Your task to perform on an android device: Open Youtube and go to "Your channel" Image 0: 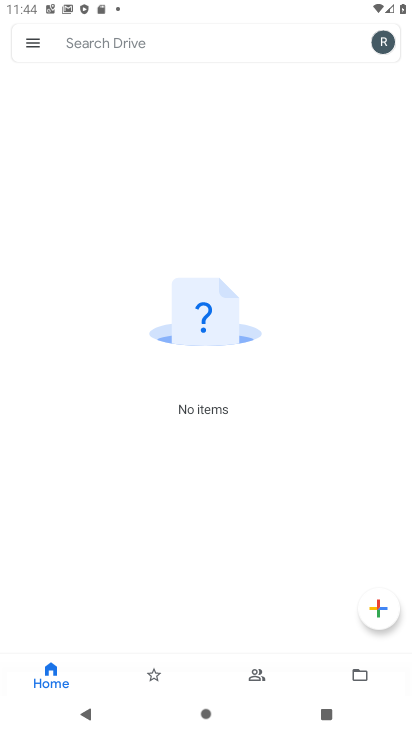
Step 0: press home button
Your task to perform on an android device: Open Youtube and go to "Your channel" Image 1: 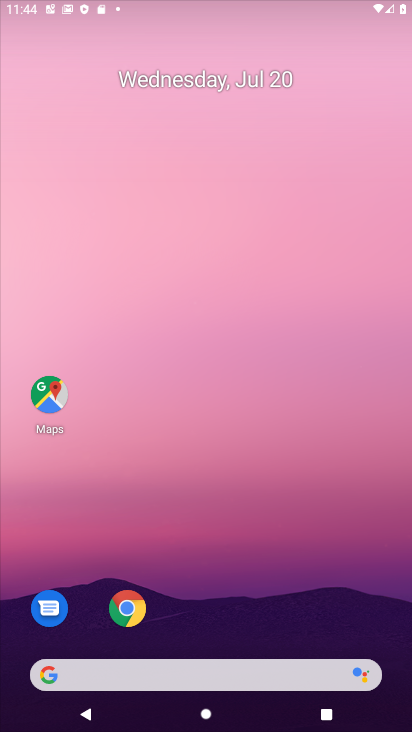
Step 1: drag from (300, 627) to (359, 72)
Your task to perform on an android device: Open Youtube and go to "Your channel" Image 2: 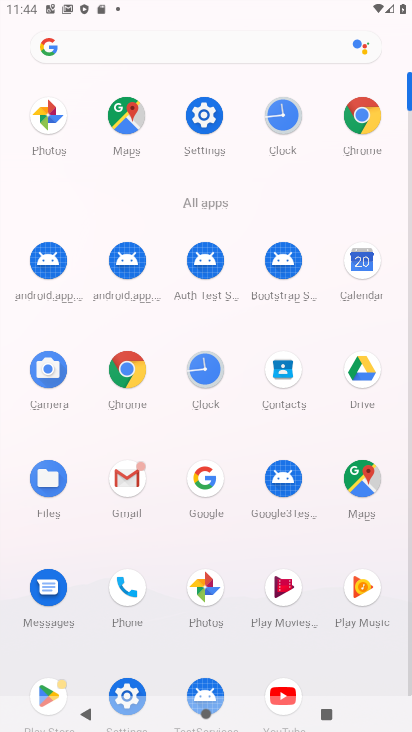
Step 2: click (274, 689)
Your task to perform on an android device: Open Youtube and go to "Your channel" Image 3: 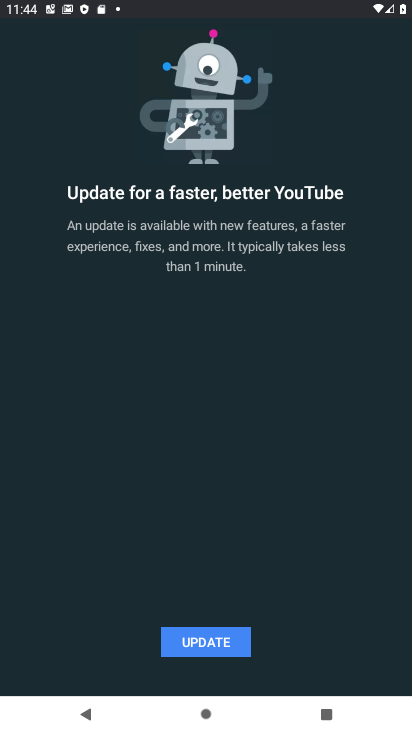
Step 3: click (214, 638)
Your task to perform on an android device: Open Youtube and go to "Your channel" Image 4: 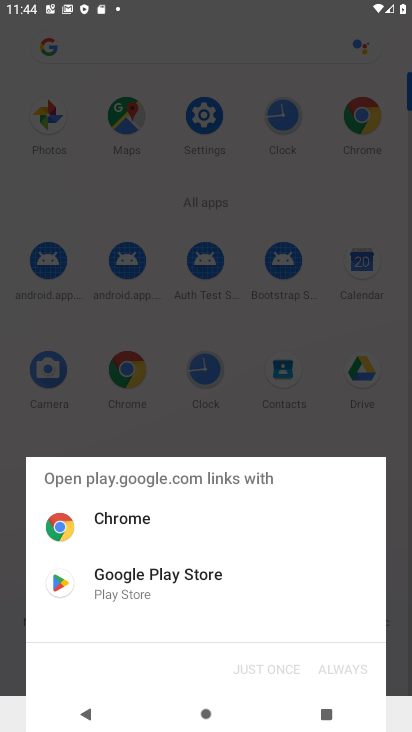
Step 4: click (122, 581)
Your task to perform on an android device: Open Youtube and go to "Your channel" Image 5: 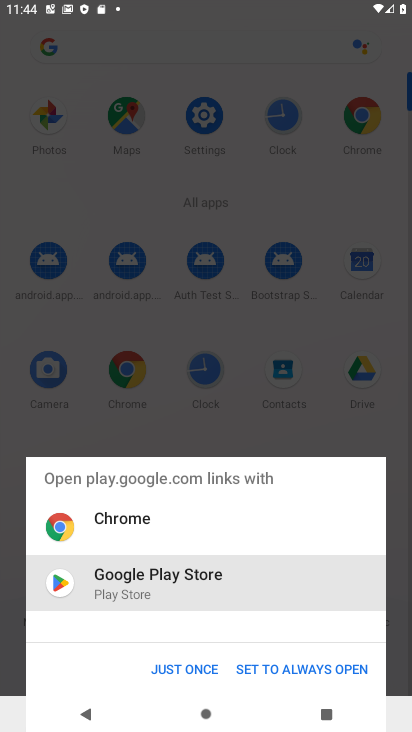
Step 5: drag from (249, 670) to (189, 684)
Your task to perform on an android device: Open Youtube and go to "Your channel" Image 6: 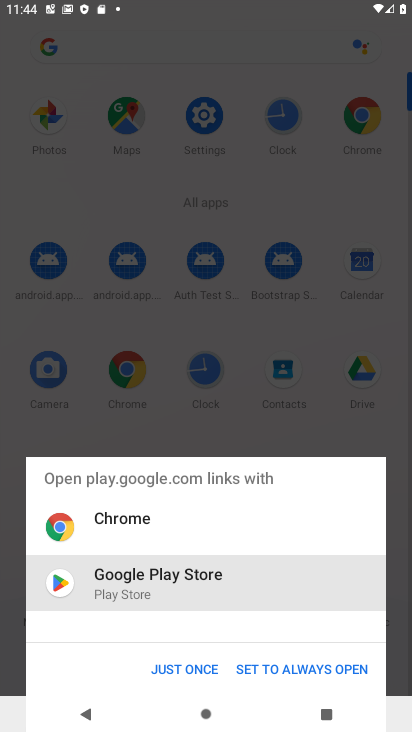
Step 6: click (183, 667)
Your task to perform on an android device: Open Youtube and go to "Your channel" Image 7: 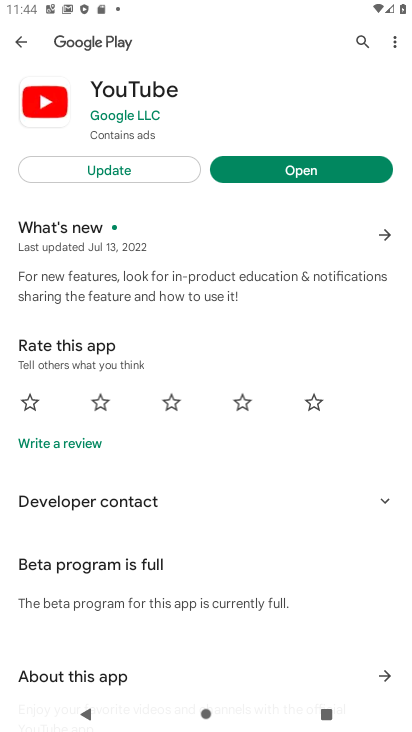
Step 7: click (133, 175)
Your task to perform on an android device: Open Youtube and go to "Your channel" Image 8: 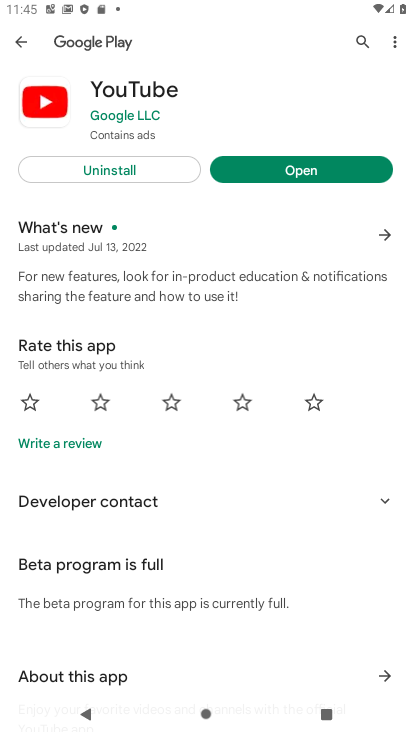
Step 8: click (303, 175)
Your task to perform on an android device: Open Youtube and go to "Your channel" Image 9: 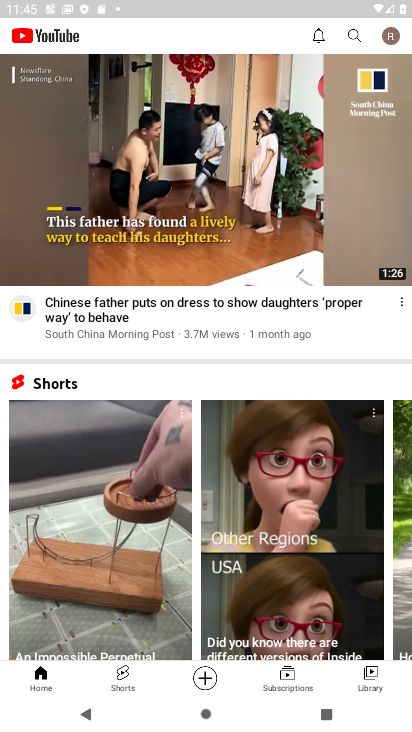
Step 9: click (392, 37)
Your task to perform on an android device: Open Youtube and go to "Your channel" Image 10: 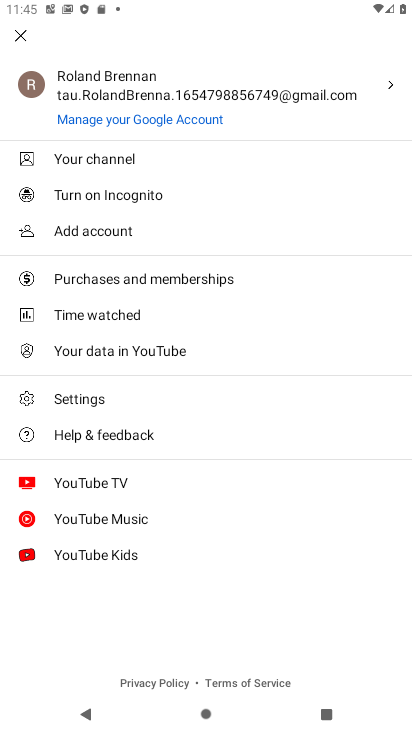
Step 10: click (59, 155)
Your task to perform on an android device: Open Youtube and go to "Your channel" Image 11: 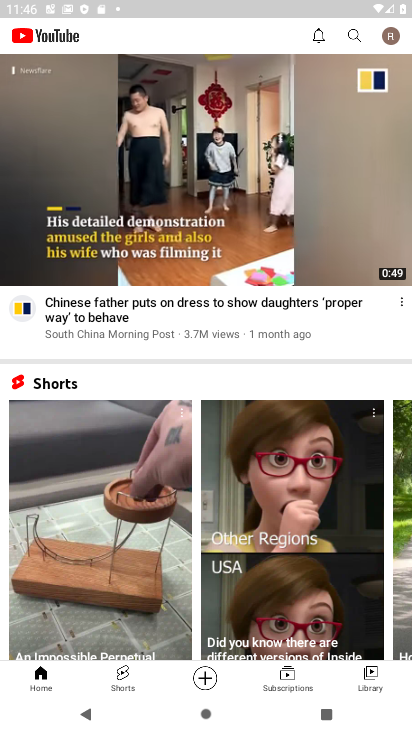
Step 11: click (366, 669)
Your task to perform on an android device: Open Youtube and go to "Your channel" Image 12: 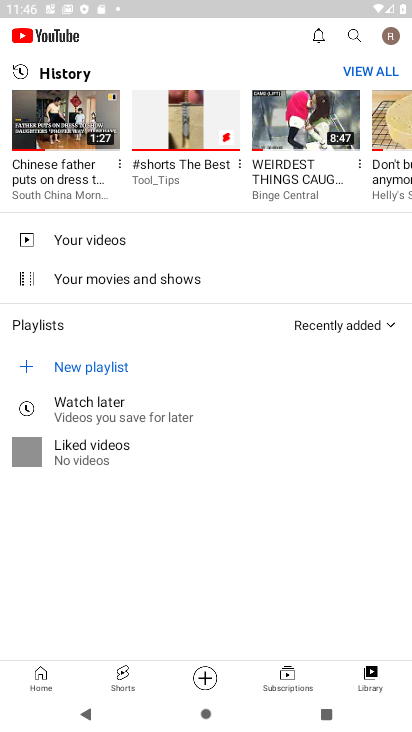
Step 12: click (389, 32)
Your task to perform on an android device: Open Youtube and go to "Your channel" Image 13: 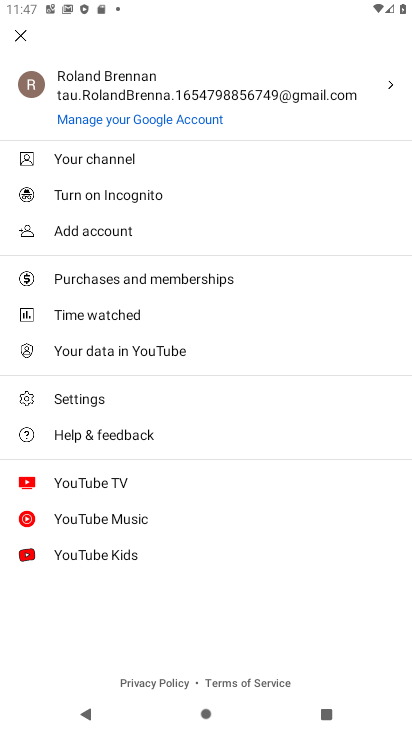
Step 13: click (101, 161)
Your task to perform on an android device: Open Youtube and go to "Your channel" Image 14: 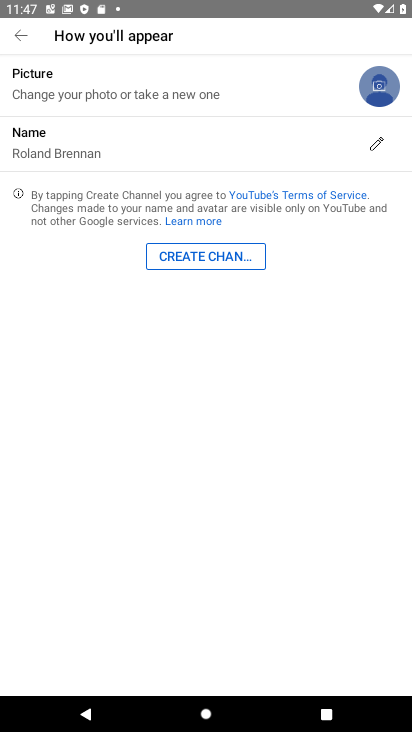
Step 14: task complete